Your task to perform on an android device: Open notification settings Image 0: 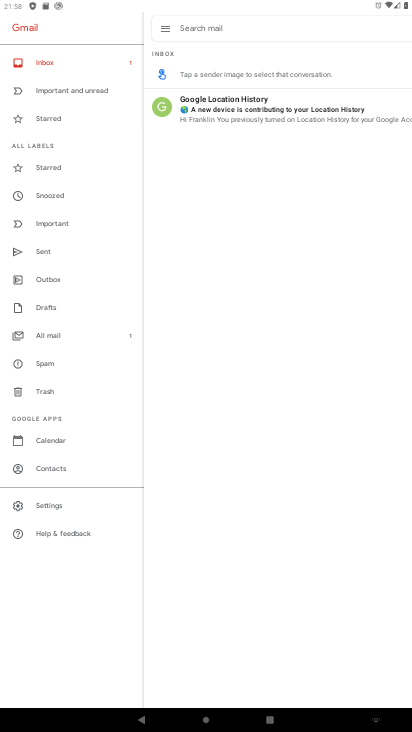
Step 0: drag from (382, 507) to (300, 109)
Your task to perform on an android device: Open notification settings Image 1: 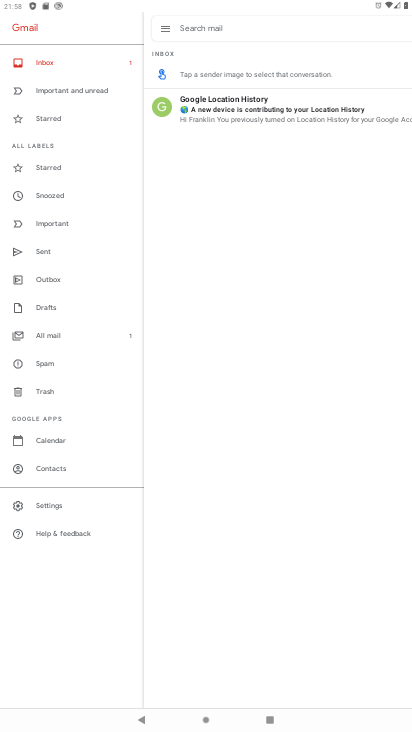
Step 1: press home button
Your task to perform on an android device: Open notification settings Image 2: 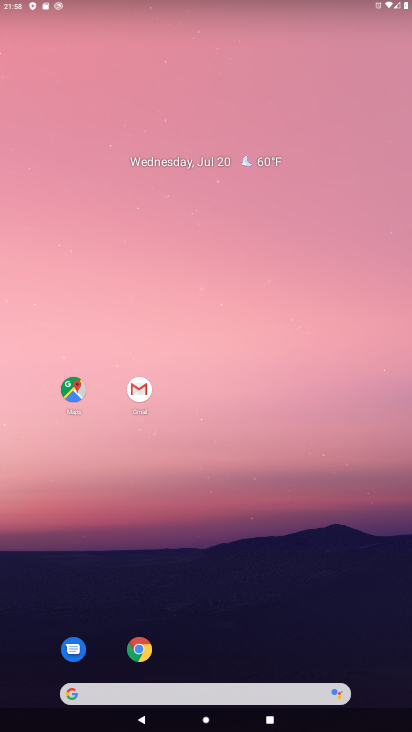
Step 2: drag from (371, 695) to (253, 109)
Your task to perform on an android device: Open notification settings Image 3: 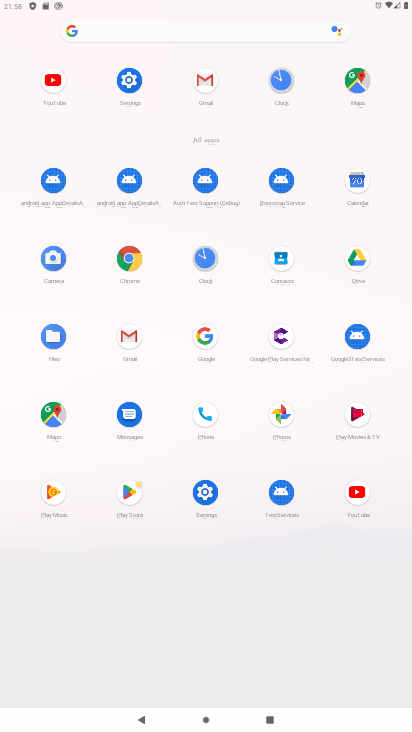
Step 3: click (125, 74)
Your task to perform on an android device: Open notification settings Image 4: 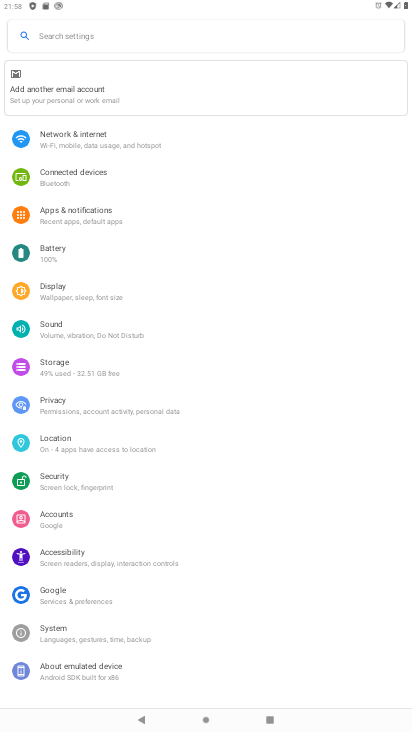
Step 4: click (56, 209)
Your task to perform on an android device: Open notification settings Image 5: 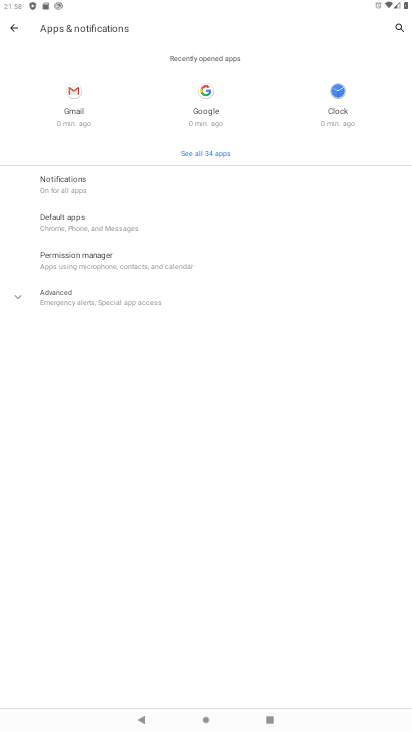
Step 5: click (52, 186)
Your task to perform on an android device: Open notification settings Image 6: 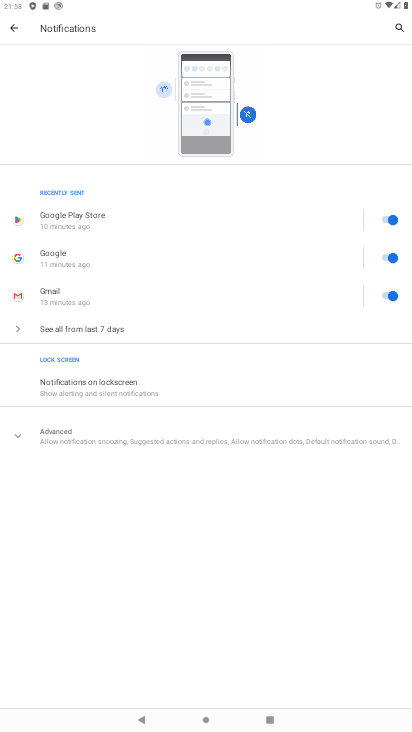
Step 6: click (21, 431)
Your task to perform on an android device: Open notification settings Image 7: 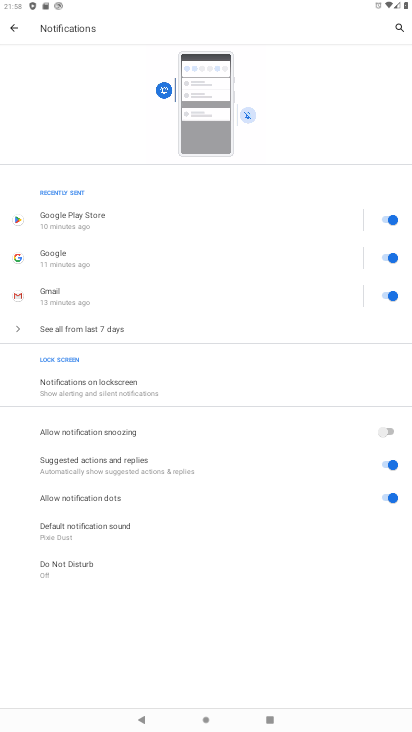
Step 7: task complete